Your task to perform on an android device: Add usb-a to usb-b to the cart on ebay.com, then select checkout. Image 0: 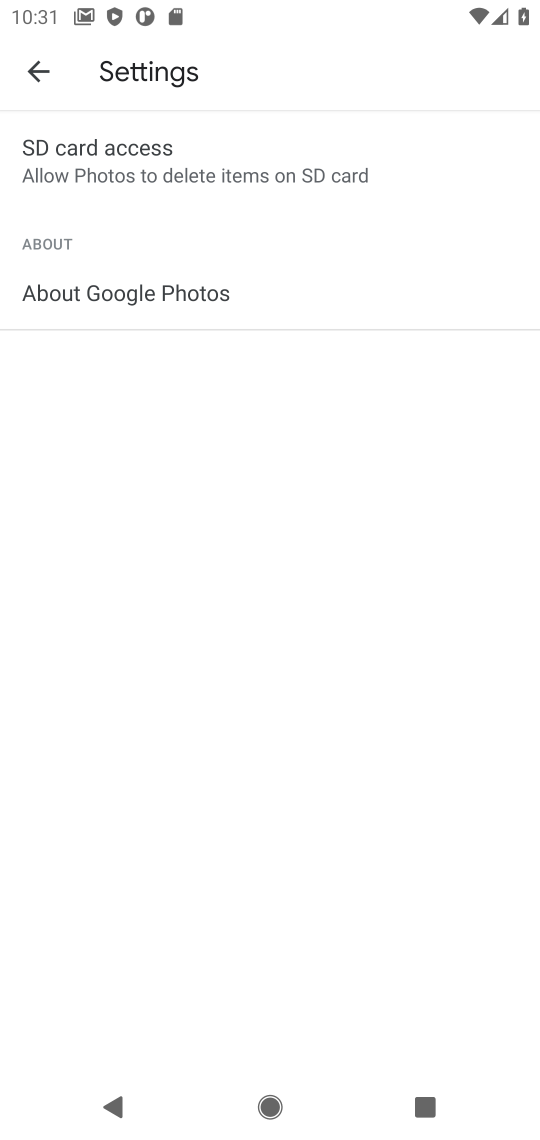
Step 0: press home button
Your task to perform on an android device: Add usb-a to usb-b to the cart on ebay.com, then select checkout. Image 1: 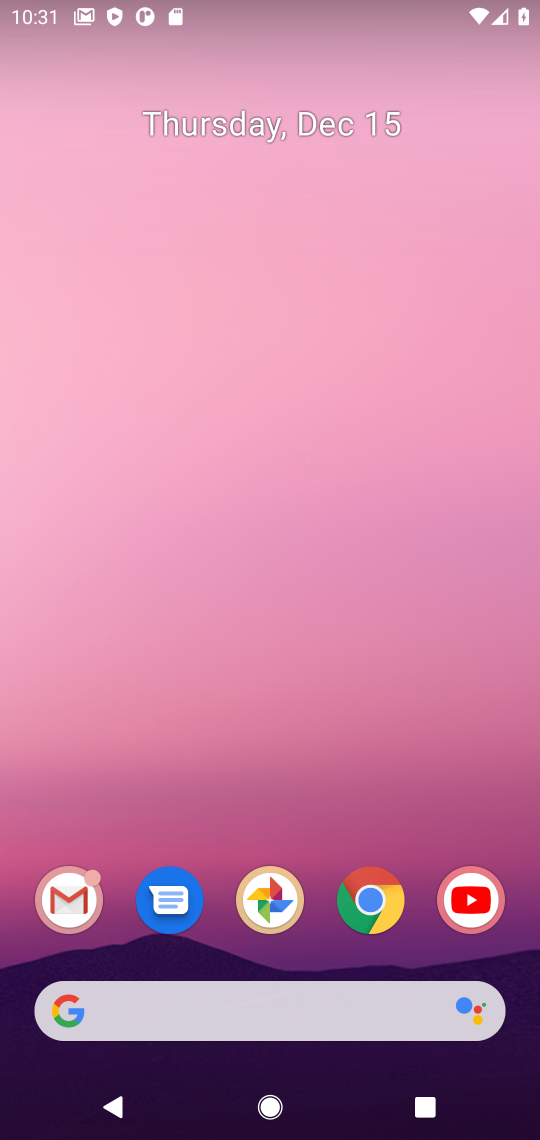
Step 1: click (376, 922)
Your task to perform on an android device: Add usb-a to usb-b to the cart on ebay.com, then select checkout. Image 2: 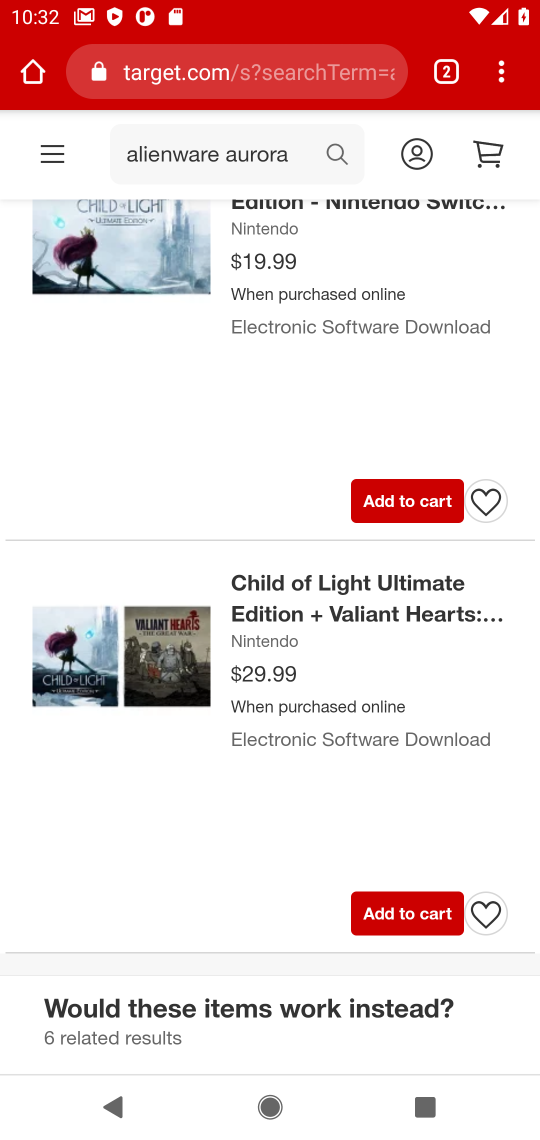
Step 2: click (174, 76)
Your task to perform on an android device: Add usb-a to usb-b to the cart on ebay.com, then select checkout. Image 3: 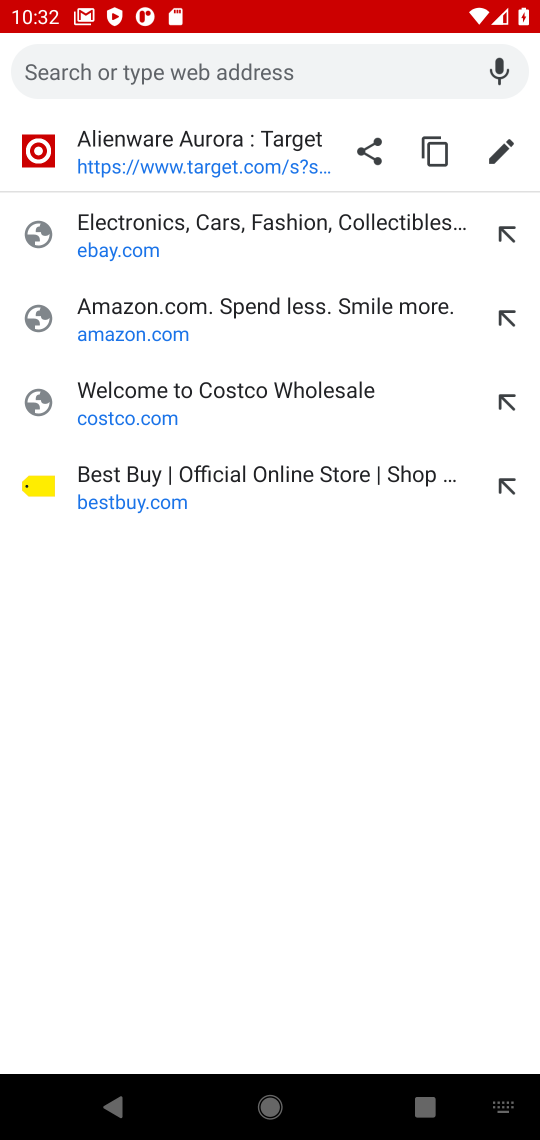
Step 3: type "ebay.com"
Your task to perform on an android device: Add usb-a to usb-b to the cart on ebay.com, then select checkout. Image 4: 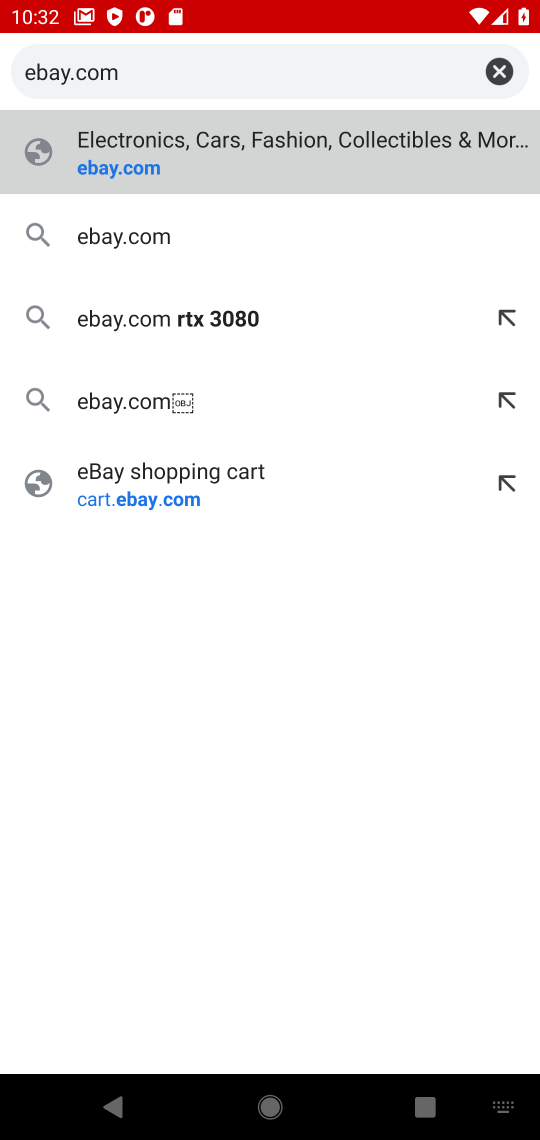
Step 4: click (116, 185)
Your task to perform on an android device: Add usb-a to usb-b to the cart on ebay.com, then select checkout. Image 5: 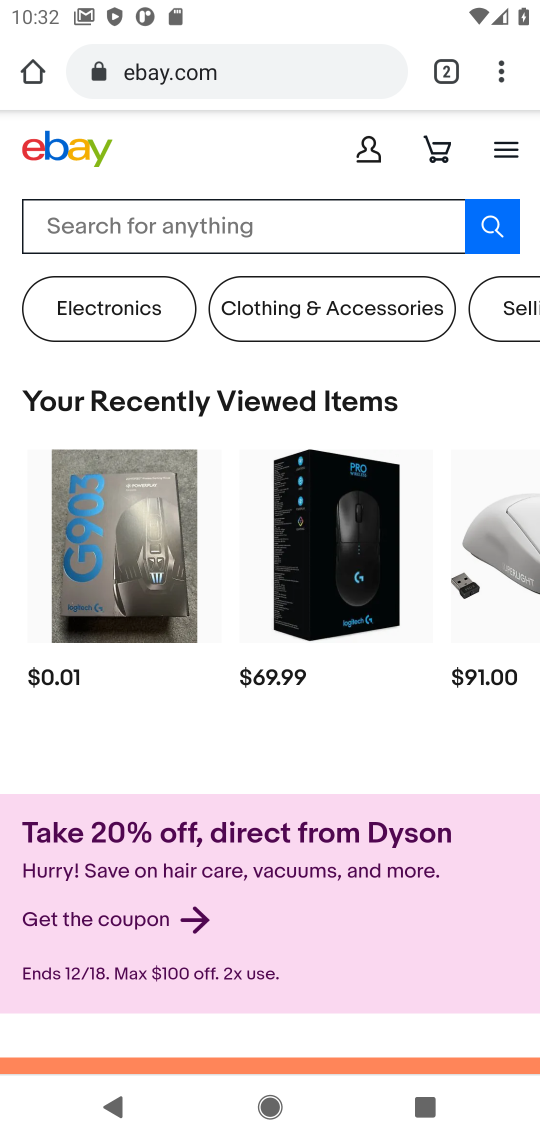
Step 5: click (164, 240)
Your task to perform on an android device: Add usb-a to usb-b to the cart on ebay.com, then select checkout. Image 6: 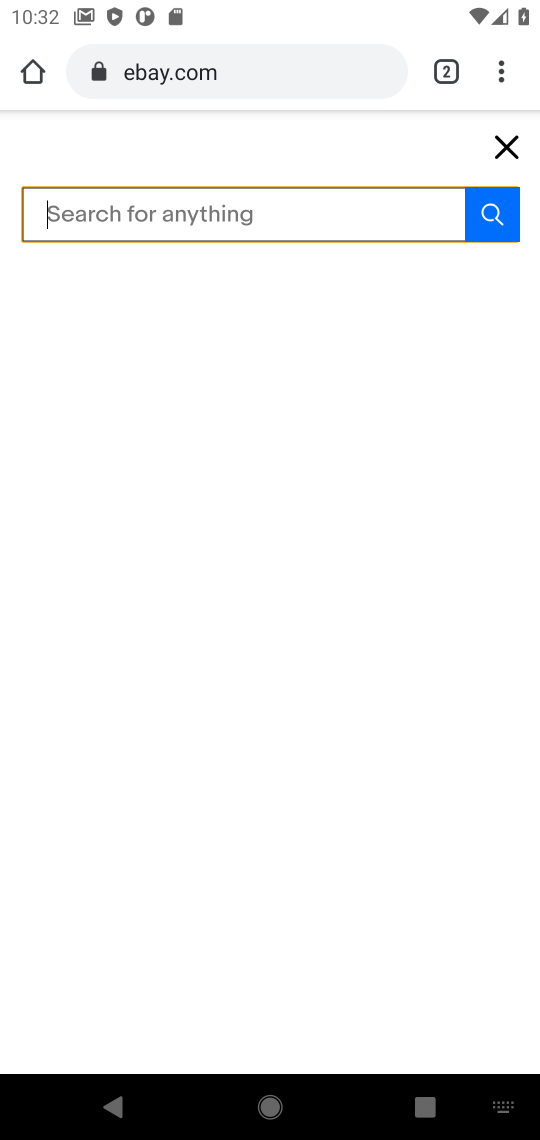
Step 6: type "usb-a to usb-b"
Your task to perform on an android device: Add usb-a to usb-b to the cart on ebay.com, then select checkout. Image 7: 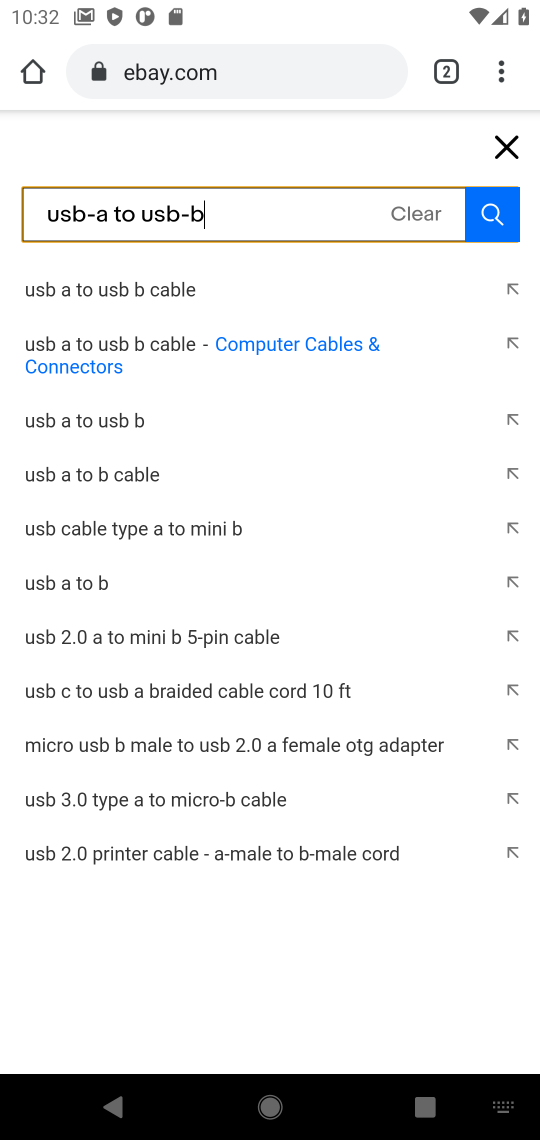
Step 7: click (498, 224)
Your task to perform on an android device: Add usb-a to usb-b to the cart on ebay.com, then select checkout. Image 8: 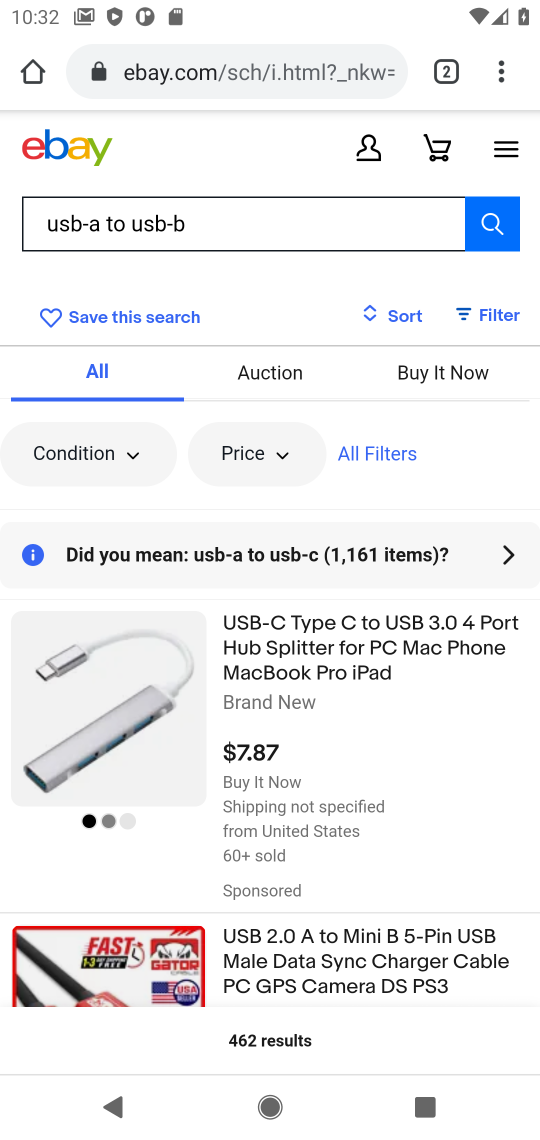
Step 8: drag from (423, 742) to (443, 296)
Your task to perform on an android device: Add usb-a to usb-b to the cart on ebay.com, then select checkout. Image 9: 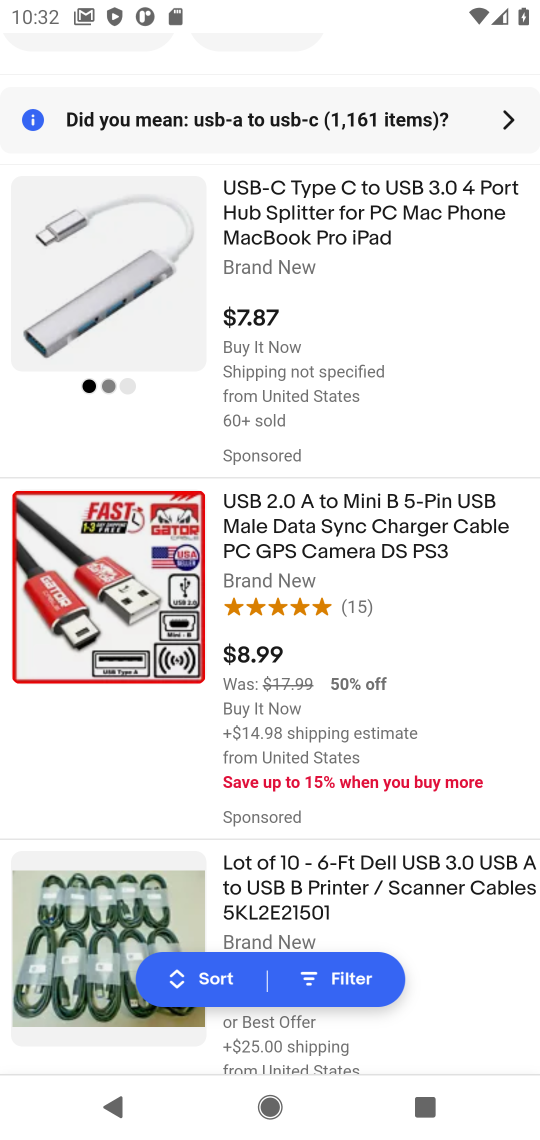
Step 9: drag from (443, 296) to (475, 588)
Your task to perform on an android device: Add usb-a to usb-b to the cart on ebay.com, then select checkout. Image 10: 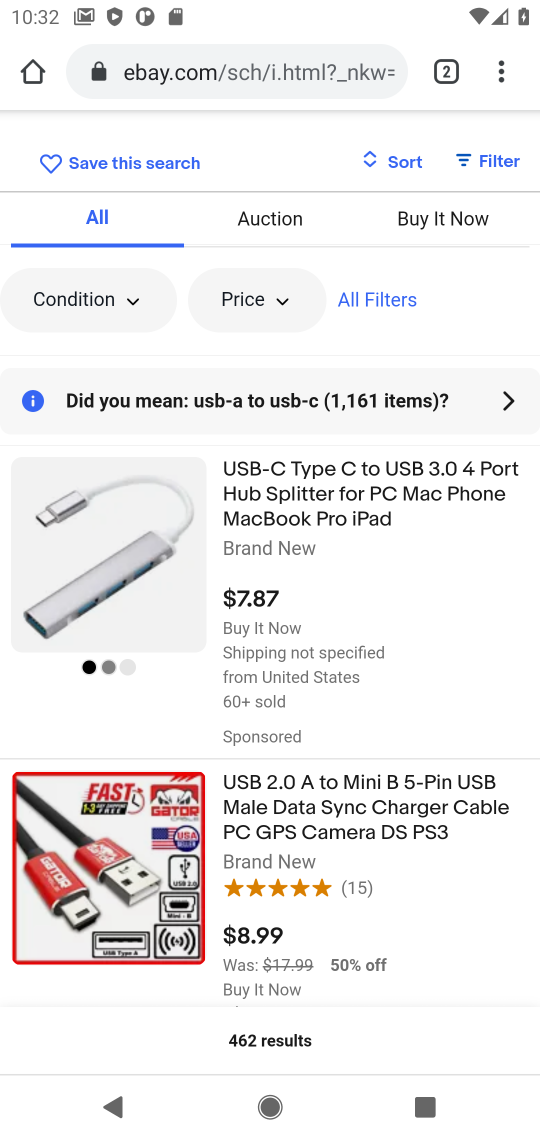
Step 10: click (329, 518)
Your task to perform on an android device: Add usb-a to usb-b to the cart on ebay.com, then select checkout. Image 11: 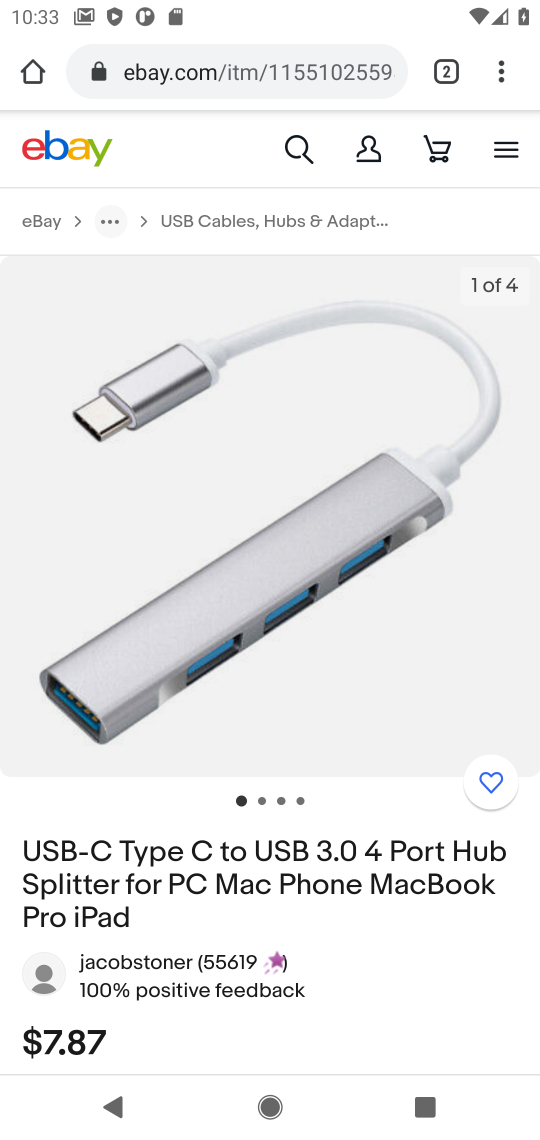
Step 11: drag from (308, 891) to (314, 319)
Your task to perform on an android device: Add usb-a to usb-b to the cart on ebay.com, then select checkout. Image 12: 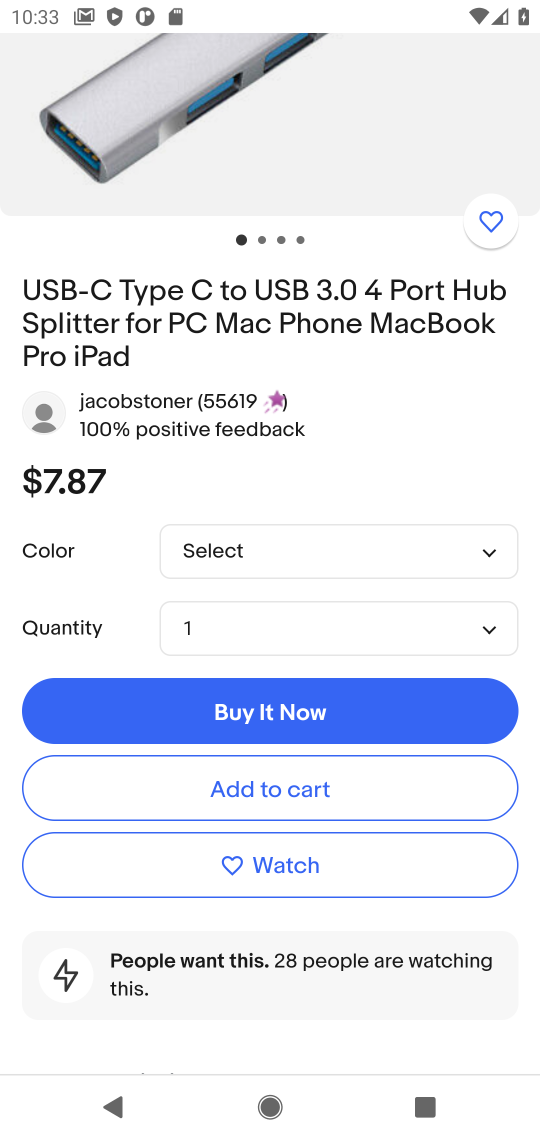
Step 12: click (278, 802)
Your task to perform on an android device: Add usb-a to usb-b to the cart on ebay.com, then select checkout. Image 13: 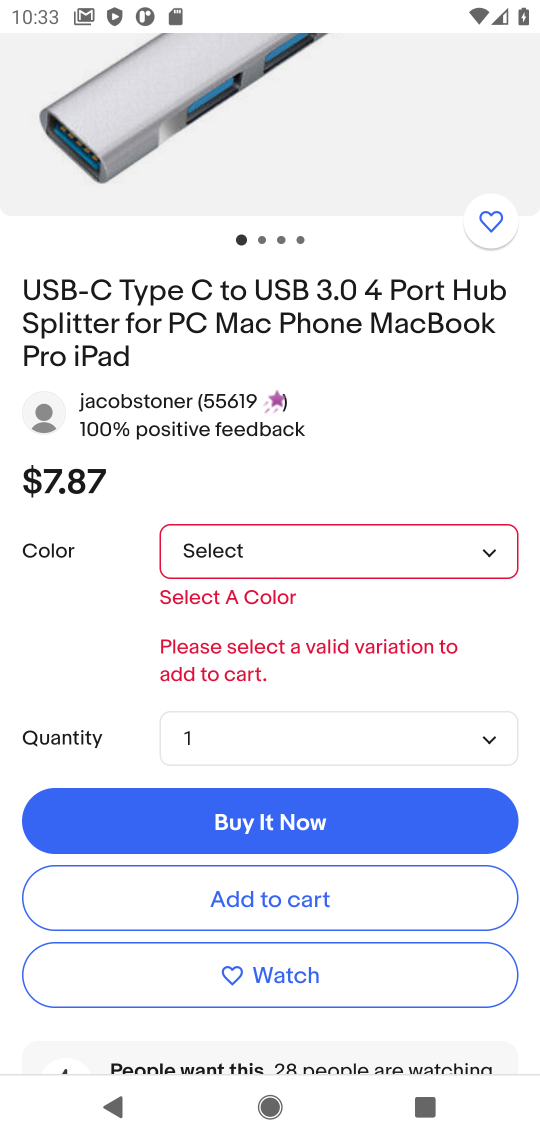
Step 13: click (272, 556)
Your task to perform on an android device: Add usb-a to usb-b to the cart on ebay.com, then select checkout. Image 14: 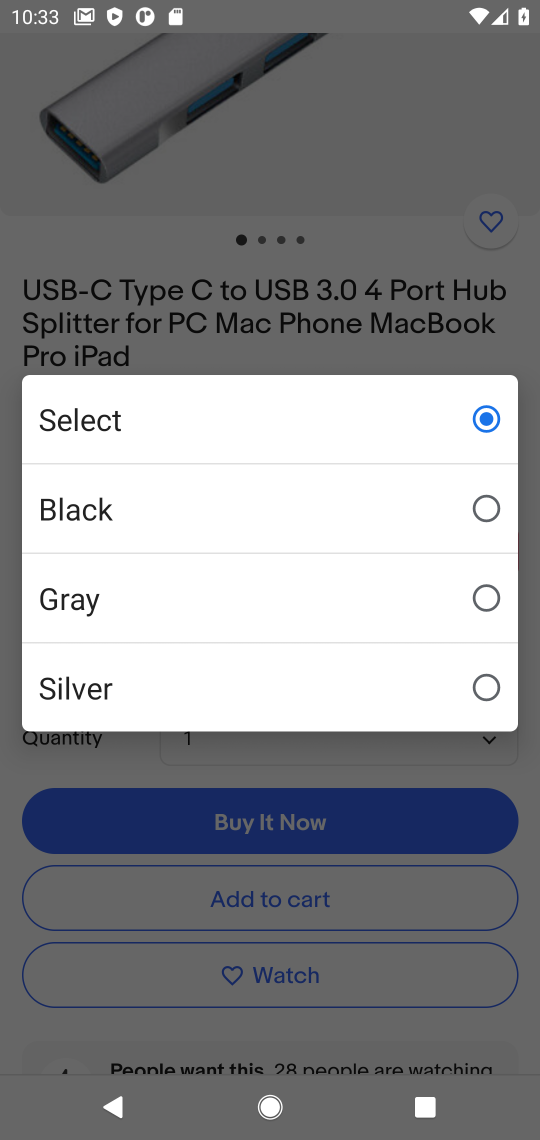
Step 14: click (275, 520)
Your task to perform on an android device: Add usb-a to usb-b to the cart on ebay.com, then select checkout. Image 15: 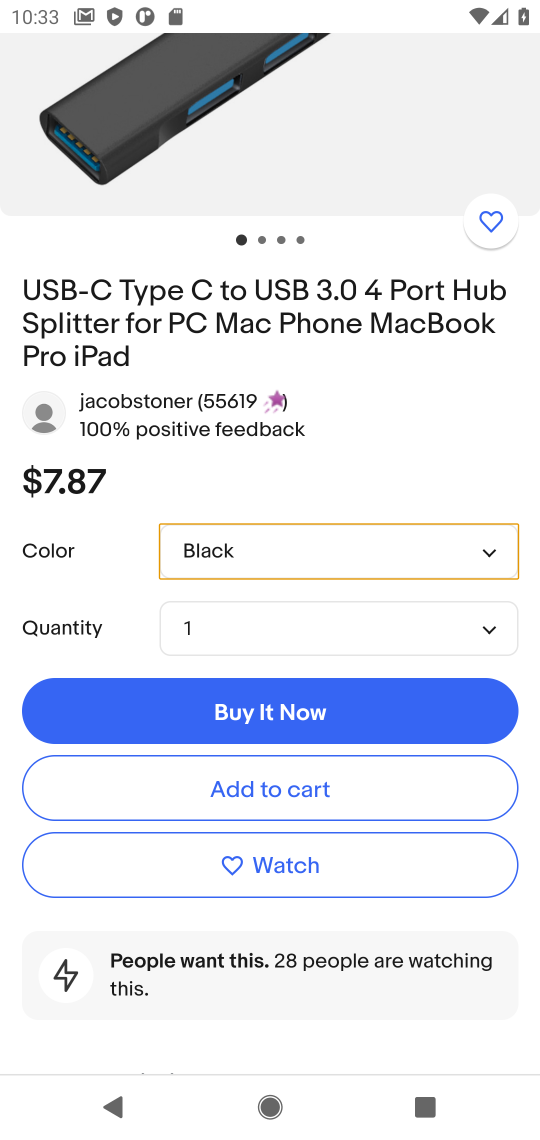
Step 15: click (255, 790)
Your task to perform on an android device: Add usb-a to usb-b to the cart on ebay.com, then select checkout. Image 16: 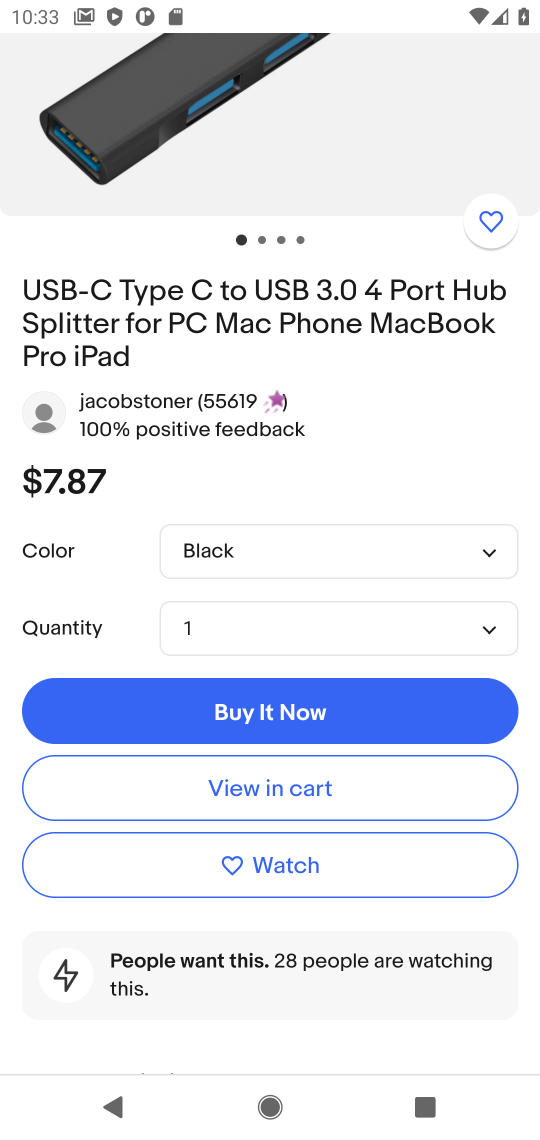
Step 16: click (255, 790)
Your task to perform on an android device: Add usb-a to usb-b to the cart on ebay.com, then select checkout. Image 17: 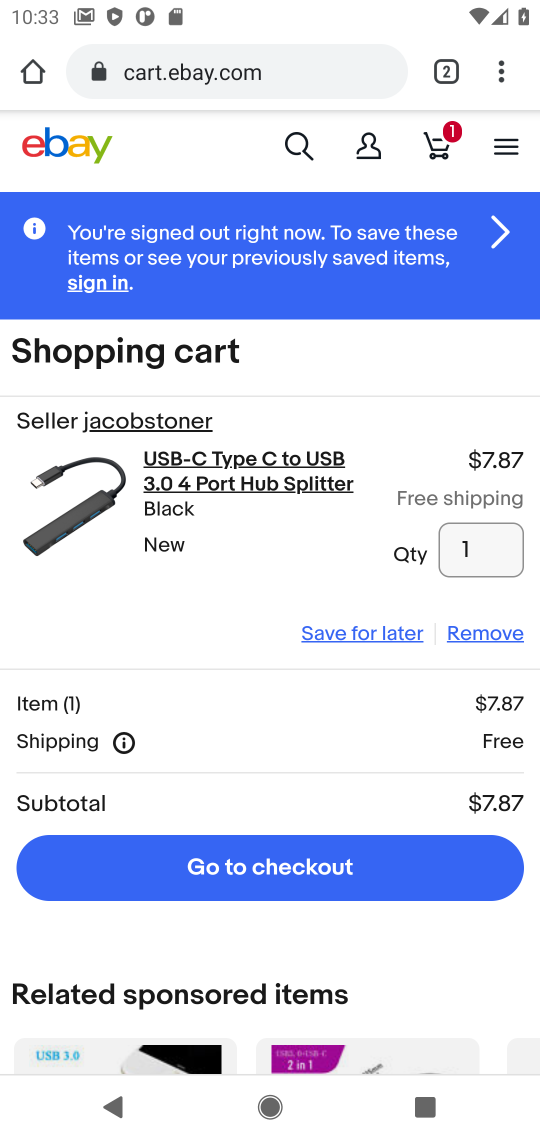
Step 17: click (264, 873)
Your task to perform on an android device: Add usb-a to usb-b to the cart on ebay.com, then select checkout. Image 18: 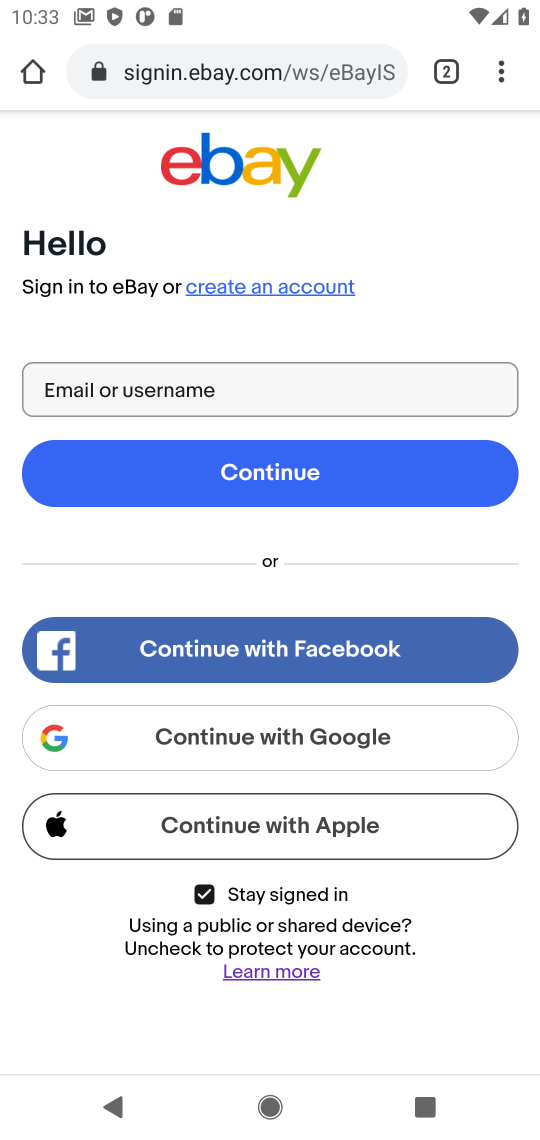
Step 18: task complete